Your task to perform on an android device: toggle pop-ups in chrome Image 0: 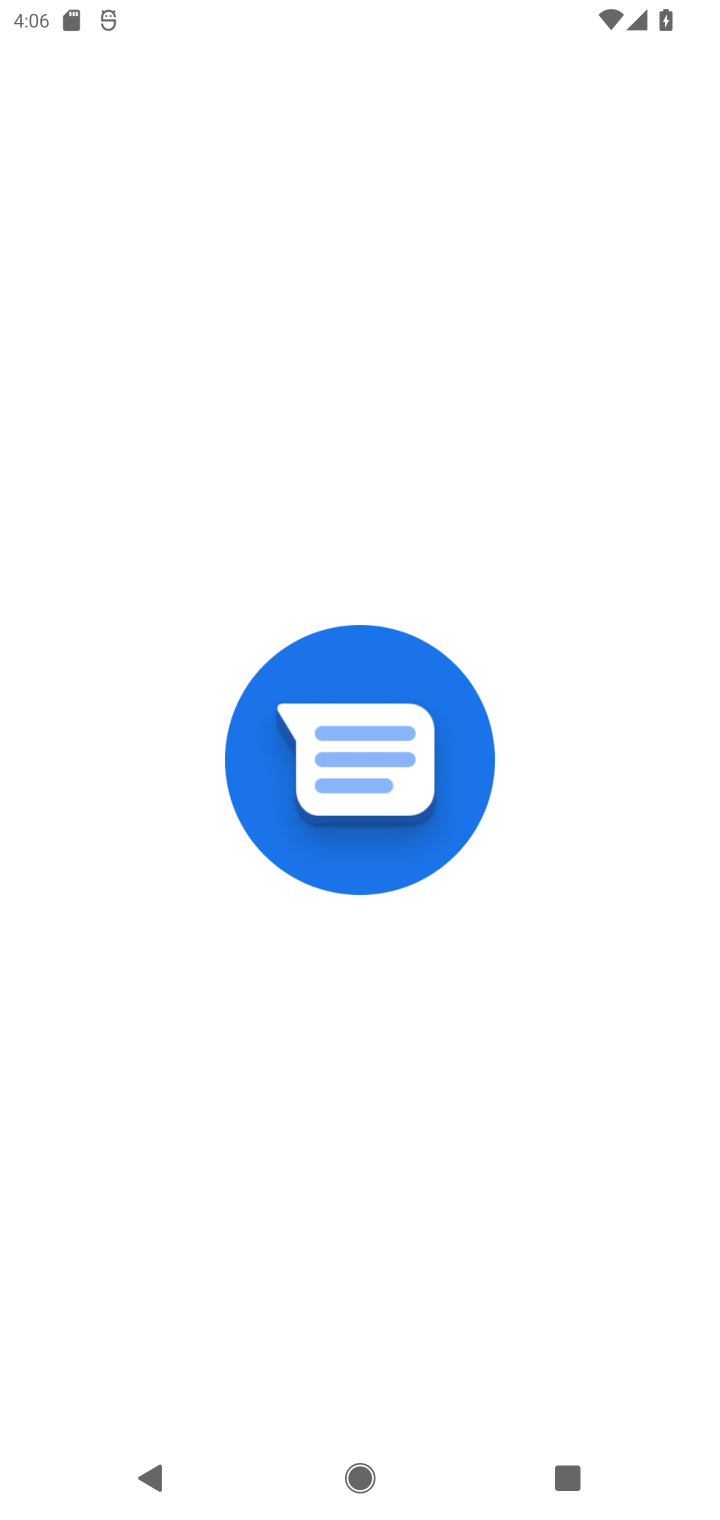
Step 0: press home button
Your task to perform on an android device: toggle pop-ups in chrome Image 1: 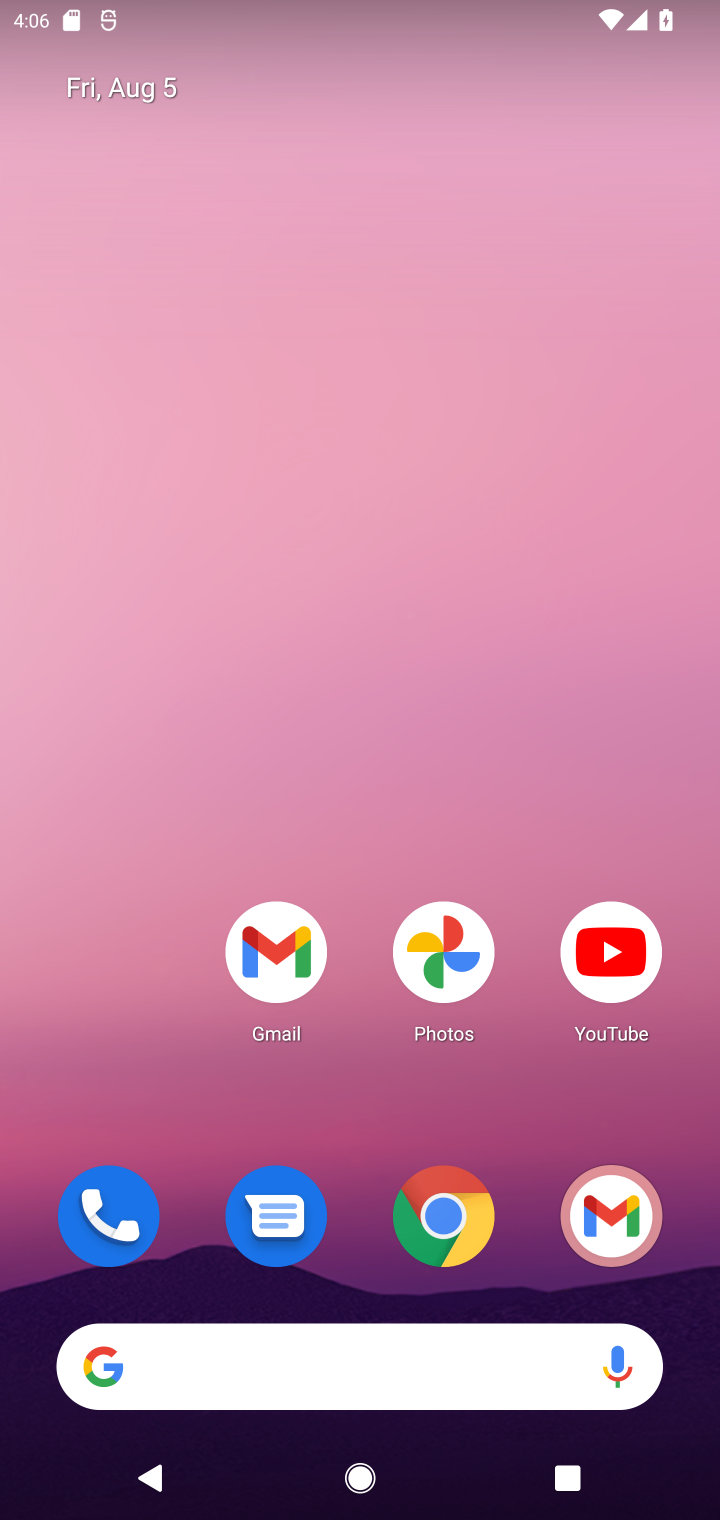
Step 1: click (436, 1201)
Your task to perform on an android device: toggle pop-ups in chrome Image 2: 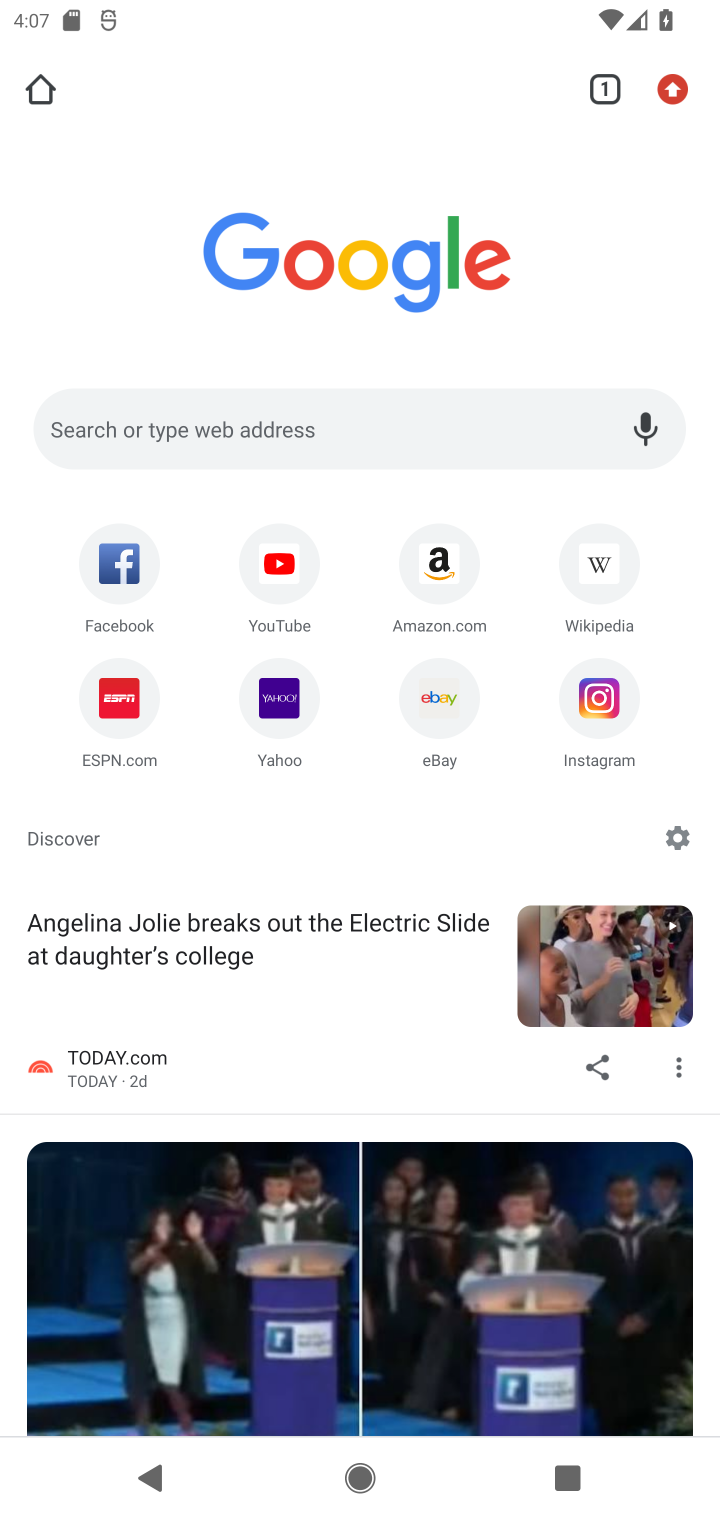
Step 2: click (671, 90)
Your task to perform on an android device: toggle pop-ups in chrome Image 3: 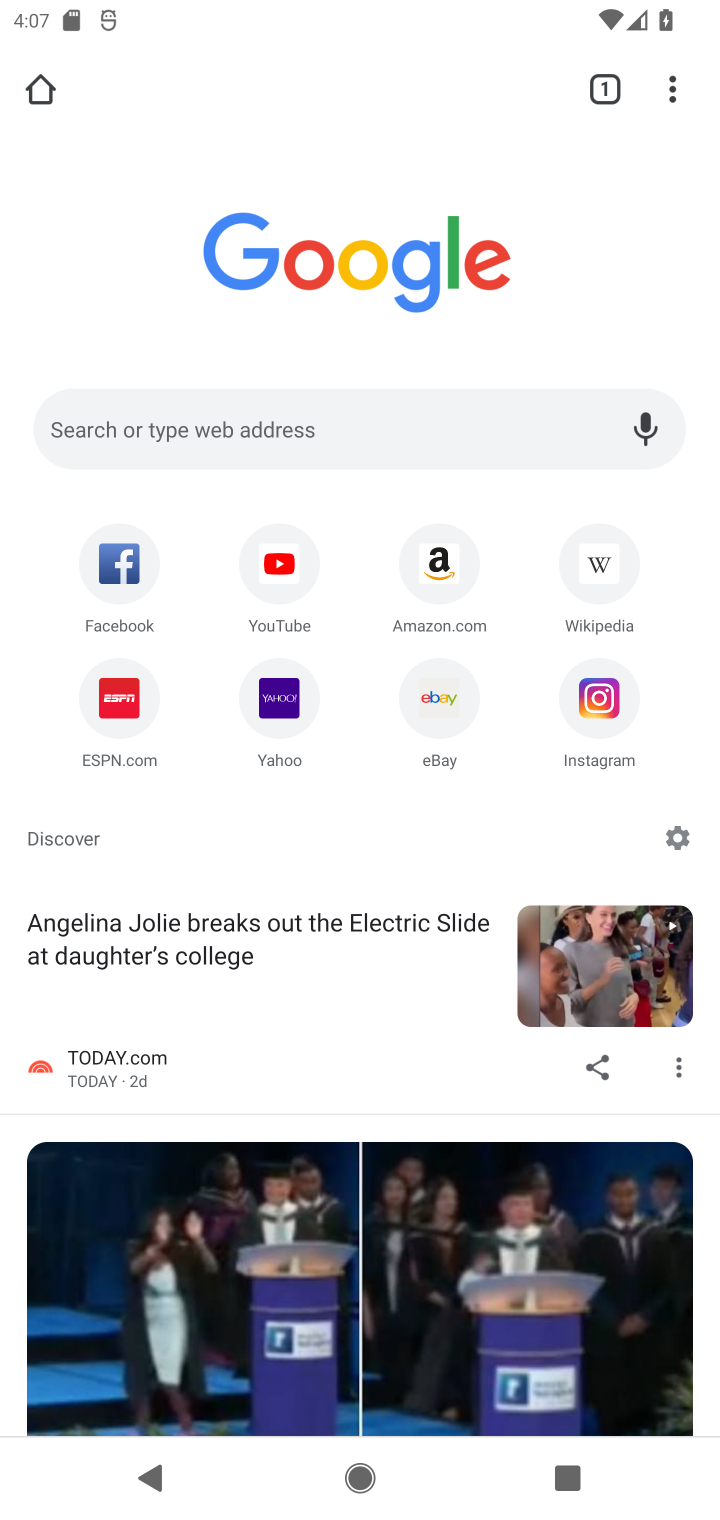
Step 3: click (671, 90)
Your task to perform on an android device: toggle pop-ups in chrome Image 4: 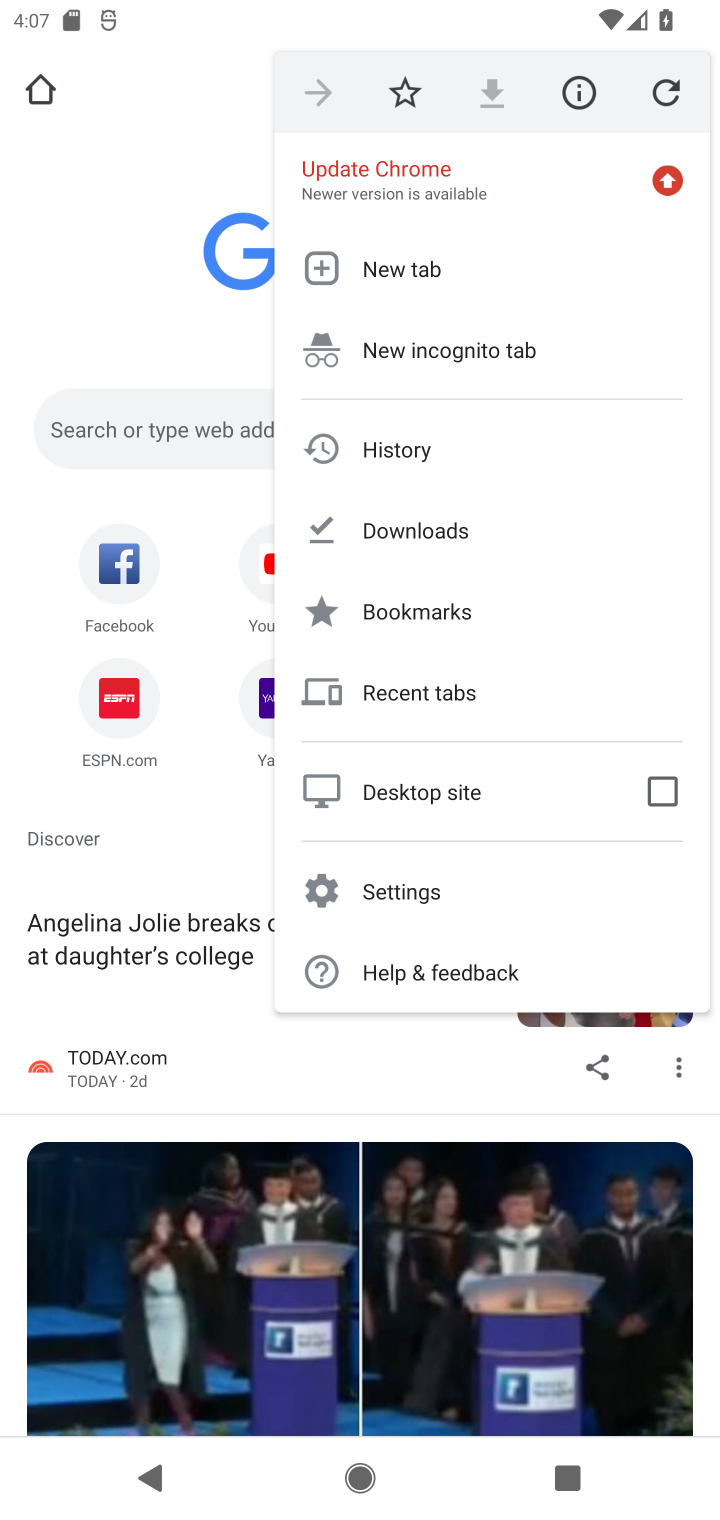
Step 4: click (388, 890)
Your task to perform on an android device: toggle pop-ups in chrome Image 5: 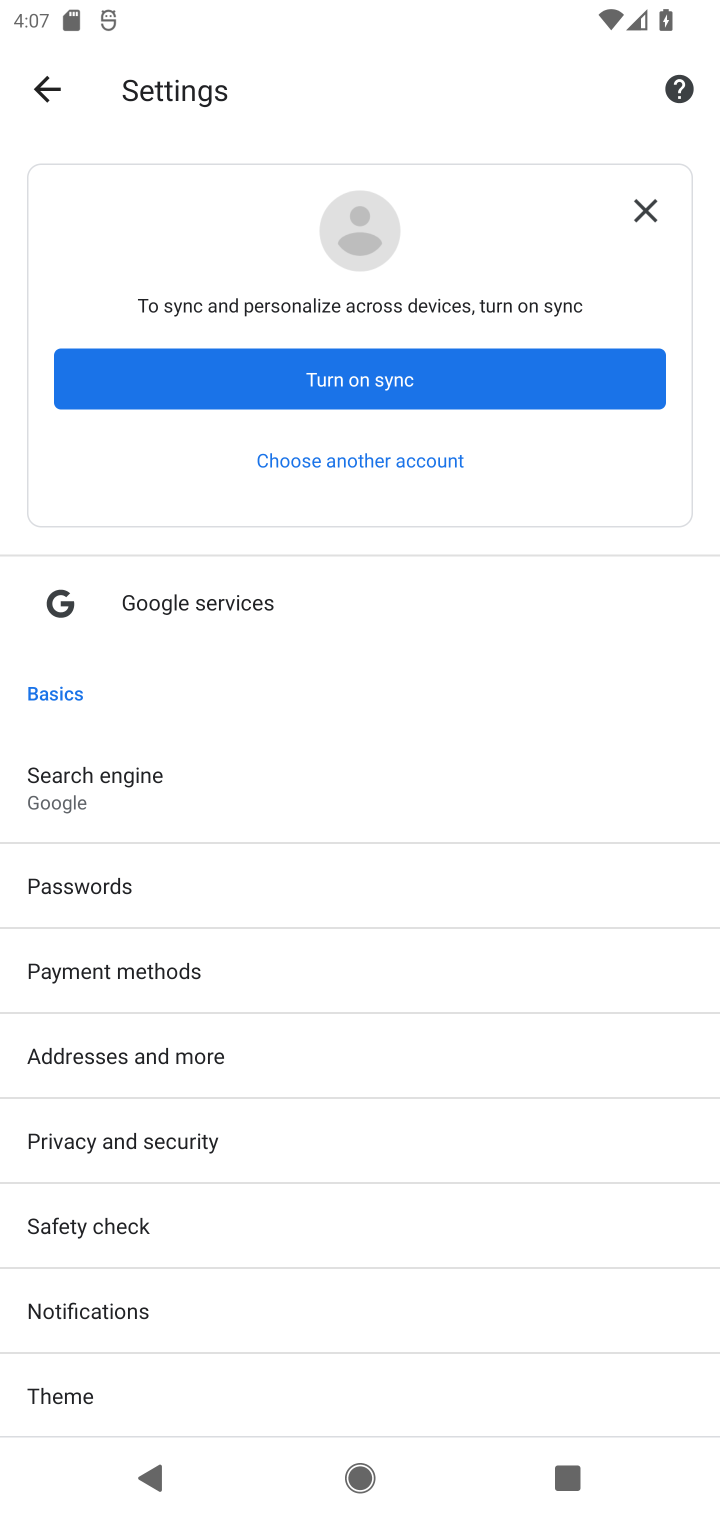
Step 5: drag from (351, 735) to (252, 25)
Your task to perform on an android device: toggle pop-ups in chrome Image 6: 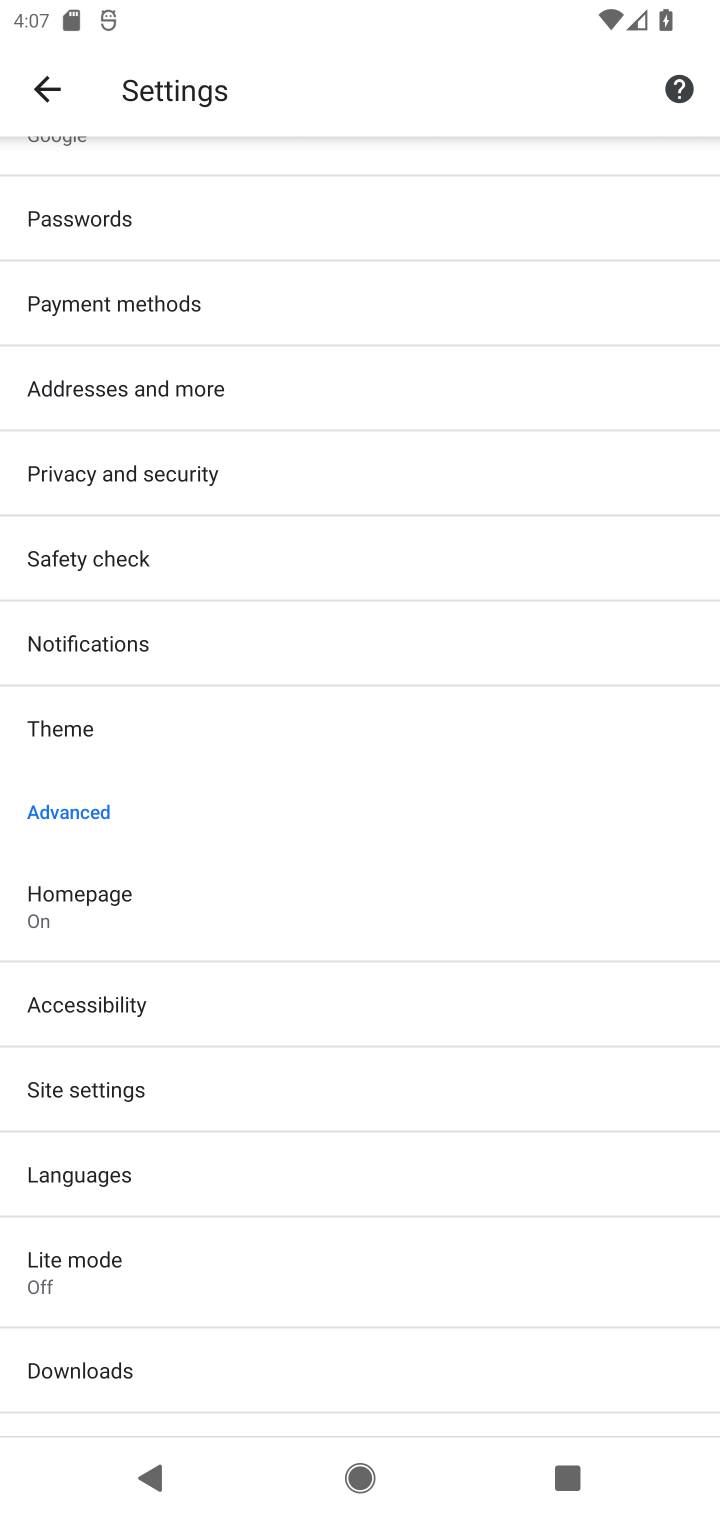
Step 6: click (86, 1092)
Your task to perform on an android device: toggle pop-ups in chrome Image 7: 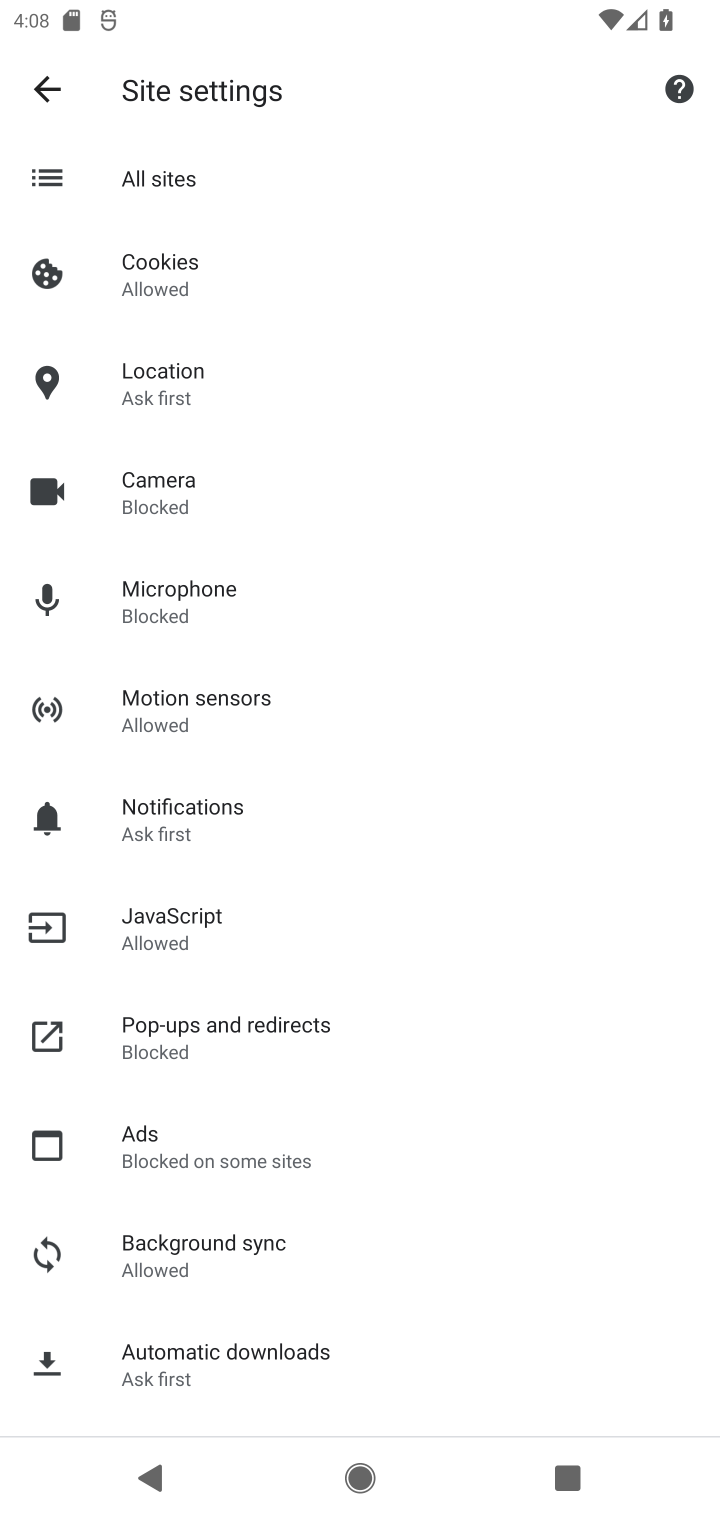
Step 7: click (186, 1030)
Your task to perform on an android device: toggle pop-ups in chrome Image 8: 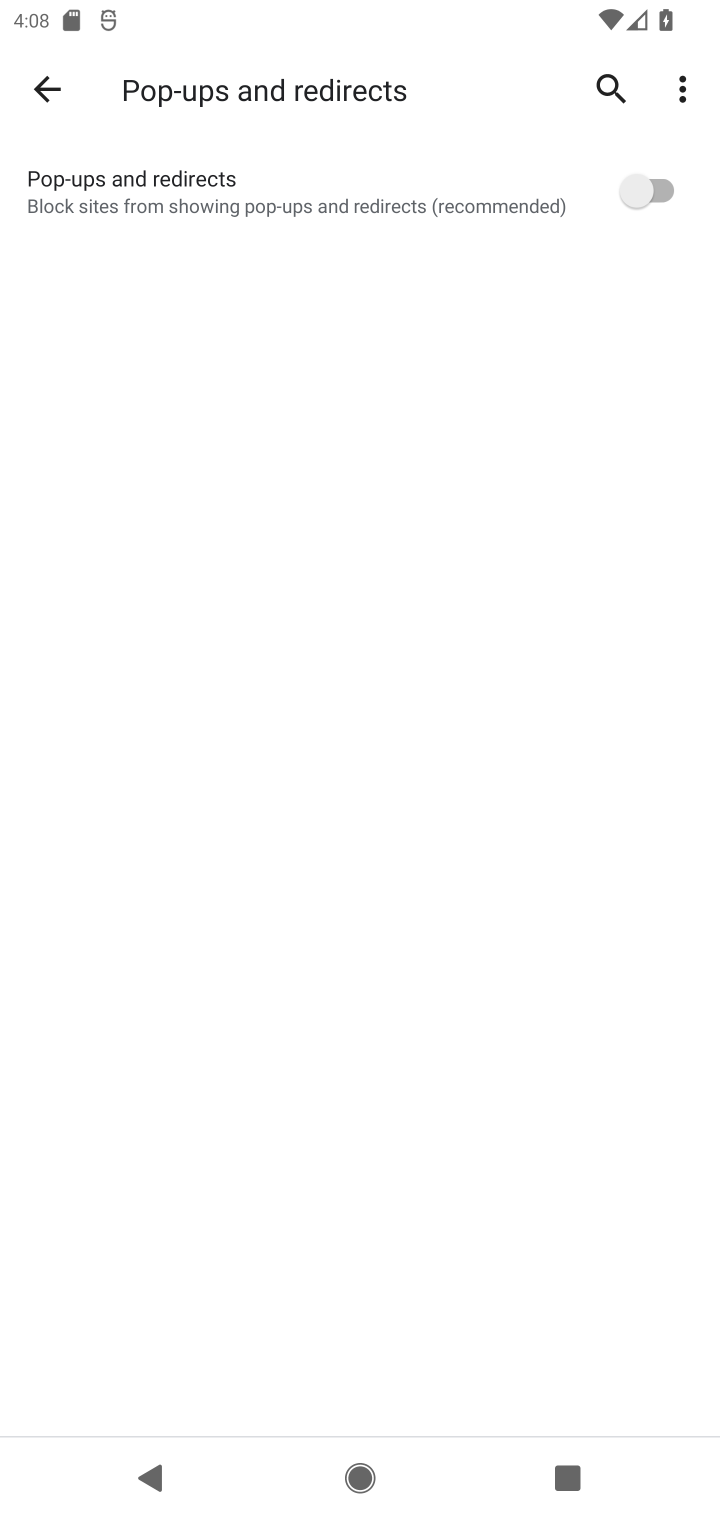
Step 8: click (649, 192)
Your task to perform on an android device: toggle pop-ups in chrome Image 9: 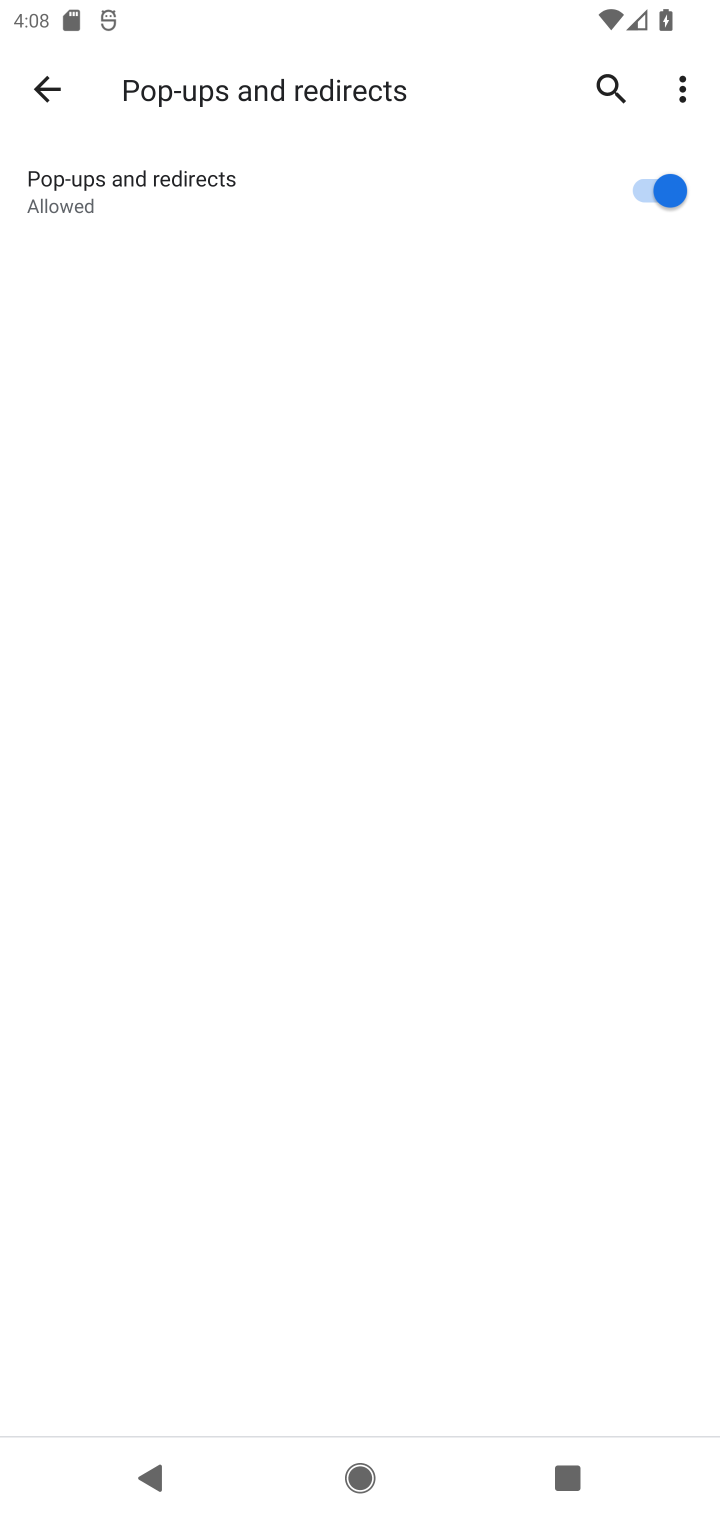
Step 9: task complete